Your task to perform on an android device: Open Yahoo.com Image 0: 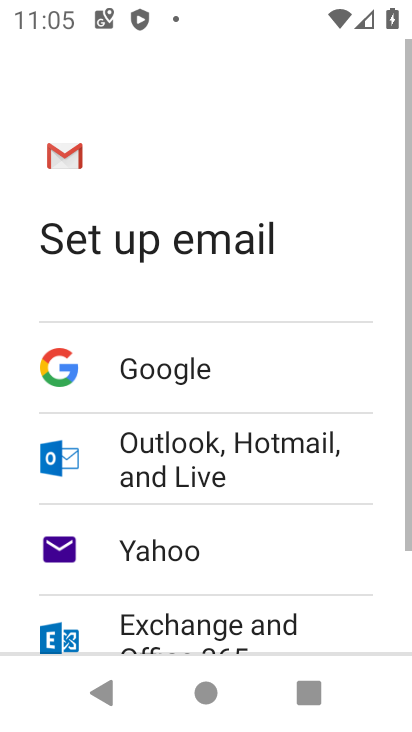
Step 0: press home button
Your task to perform on an android device: Open Yahoo.com Image 1: 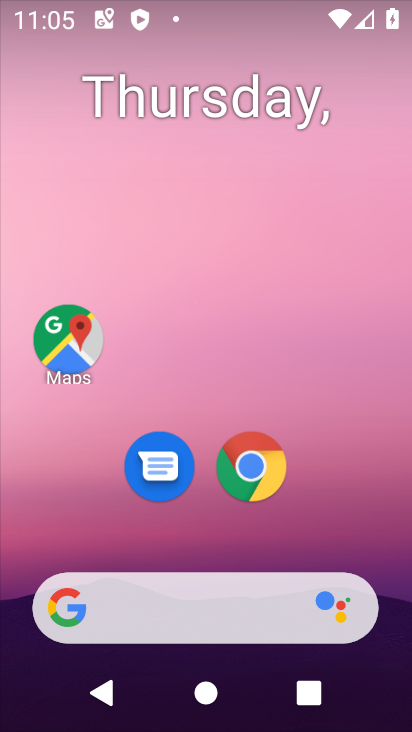
Step 1: click (251, 479)
Your task to perform on an android device: Open Yahoo.com Image 2: 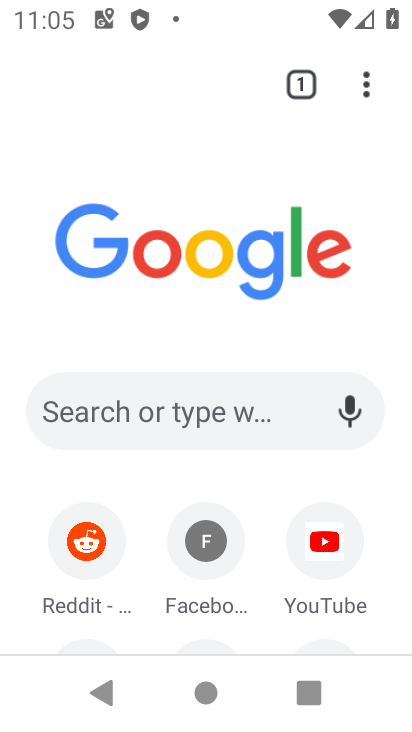
Step 2: drag from (247, 590) to (222, 345)
Your task to perform on an android device: Open Yahoo.com Image 3: 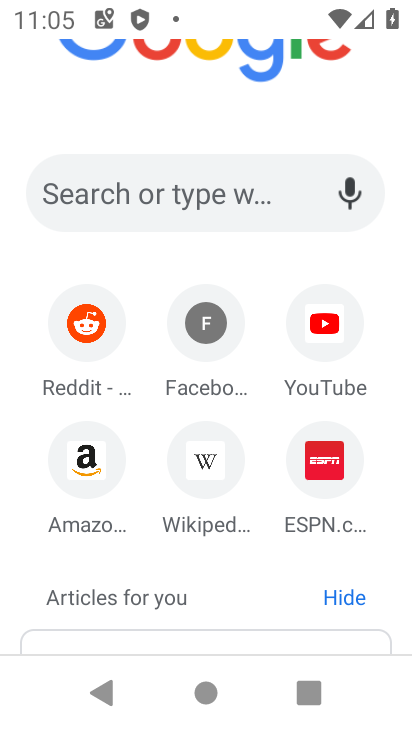
Step 3: click (182, 213)
Your task to perform on an android device: Open Yahoo.com Image 4: 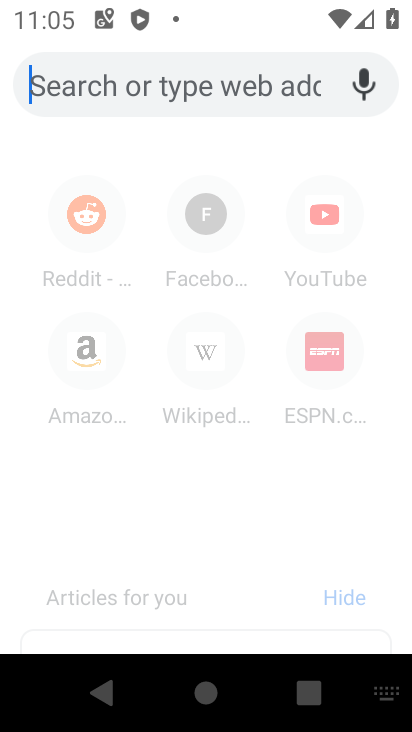
Step 4: type "yahoo"
Your task to perform on an android device: Open Yahoo.com Image 5: 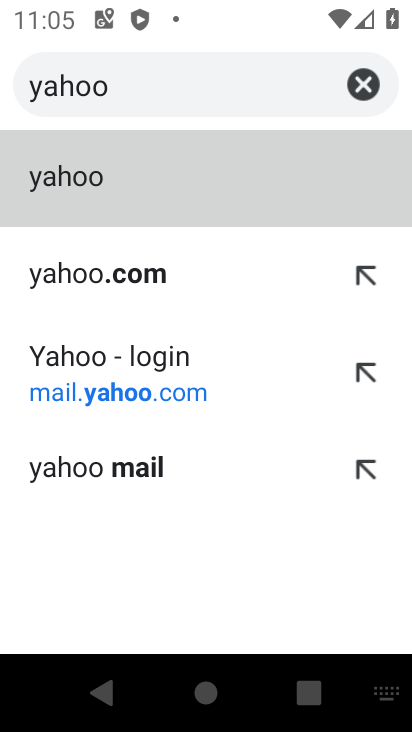
Step 5: click (212, 261)
Your task to perform on an android device: Open Yahoo.com Image 6: 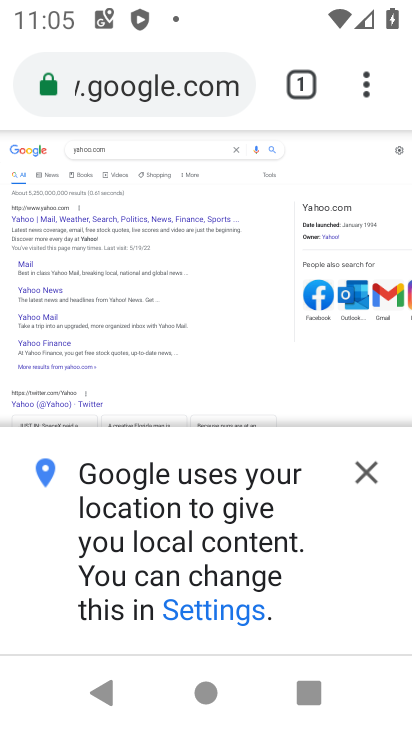
Step 6: task complete